Your task to perform on an android device: Open calendar and show me the first week of next month Image 0: 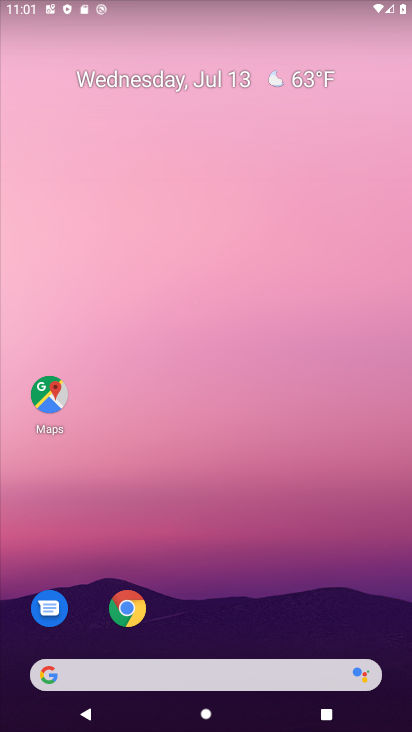
Step 0: press home button
Your task to perform on an android device: Open calendar and show me the first week of next month Image 1: 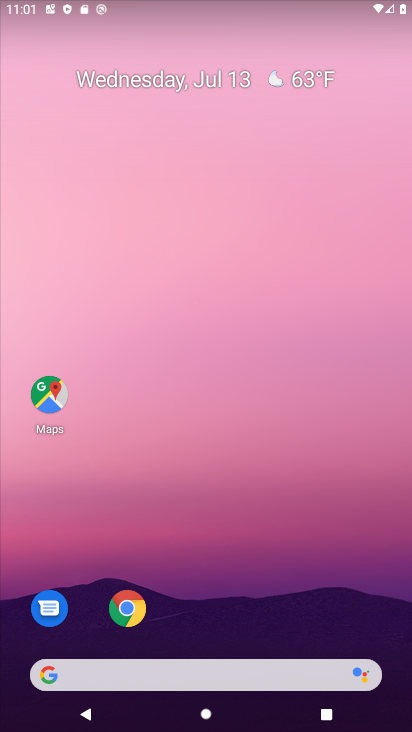
Step 1: drag from (285, 580) to (383, 68)
Your task to perform on an android device: Open calendar and show me the first week of next month Image 2: 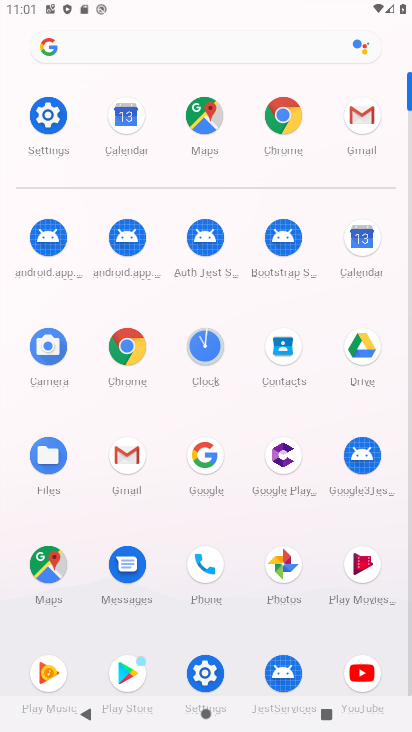
Step 2: click (366, 240)
Your task to perform on an android device: Open calendar and show me the first week of next month Image 3: 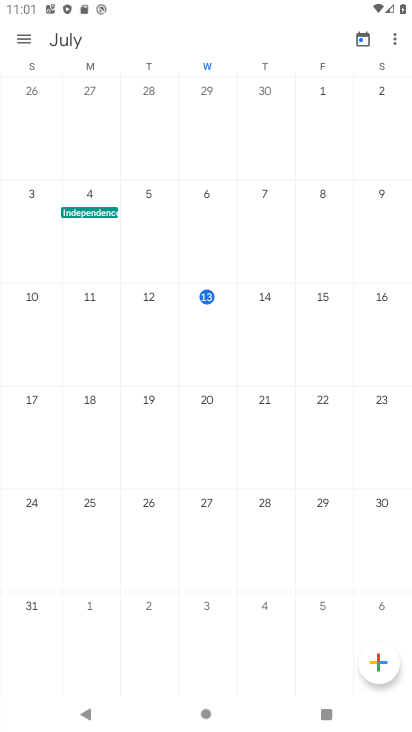
Step 3: task complete